Your task to perform on an android device: Go to sound settings Image 0: 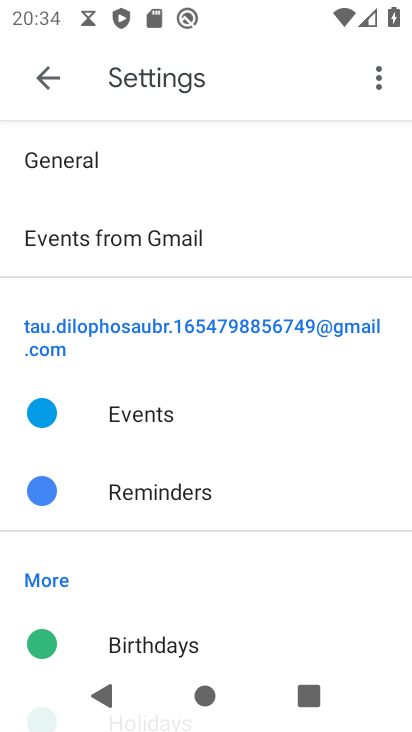
Step 0: press home button
Your task to perform on an android device: Go to sound settings Image 1: 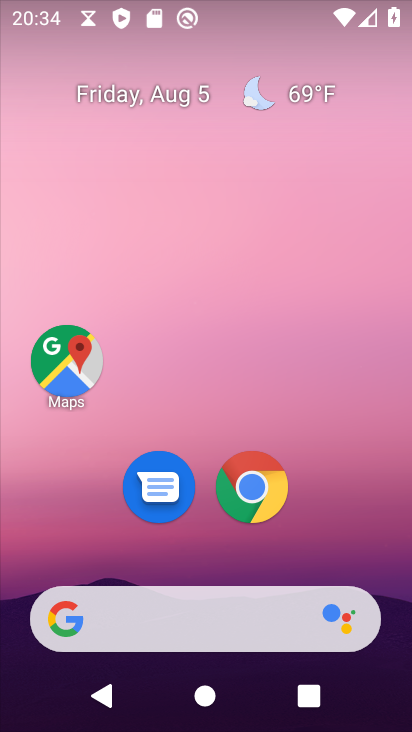
Step 1: drag from (169, 605) to (210, 102)
Your task to perform on an android device: Go to sound settings Image 2: 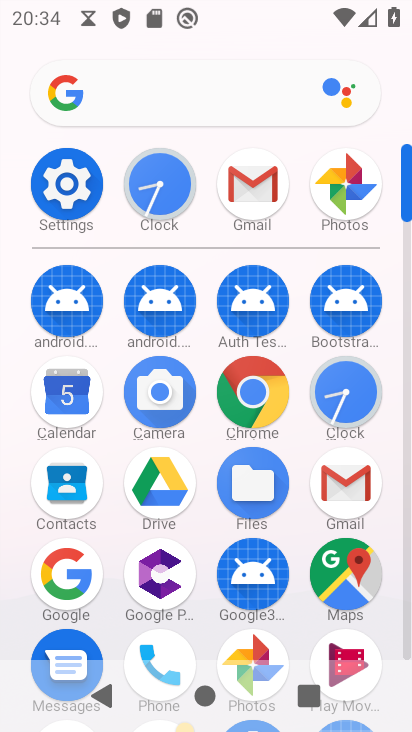
Step 2: click (67, 191)
Your task to perform on an android device: Go to sound settings Image 3: 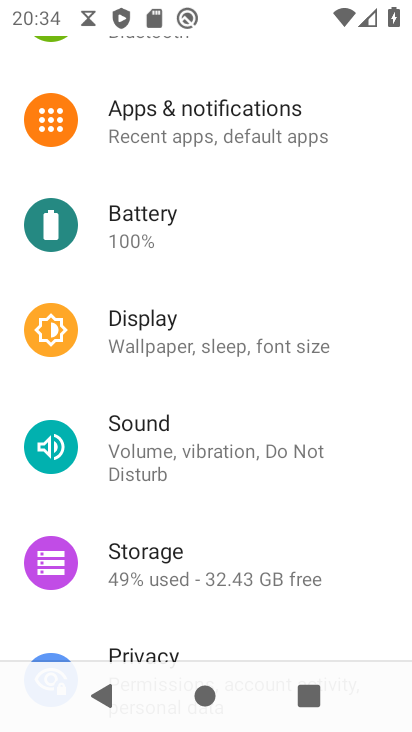
Step 3: click (130, 457)
Your task to perform on an android device: Go to sound settings Image 4: 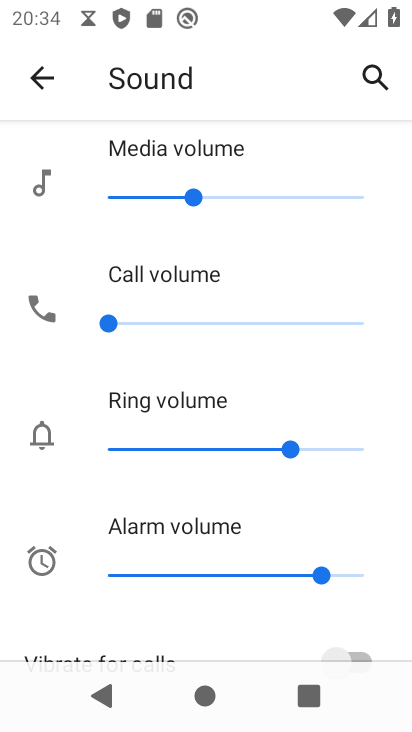
Step 4: task complete